Your task to perform on an android device: Open ESPN.com Image 0: 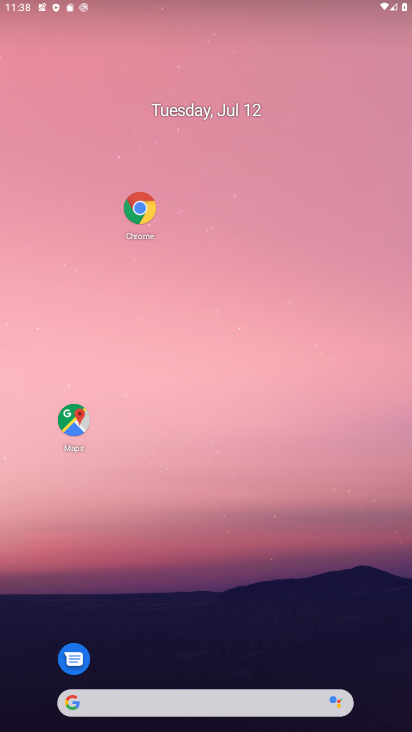
Step 0: press home button
Your task to perform on an android device: Open ESPN.com Image 1: 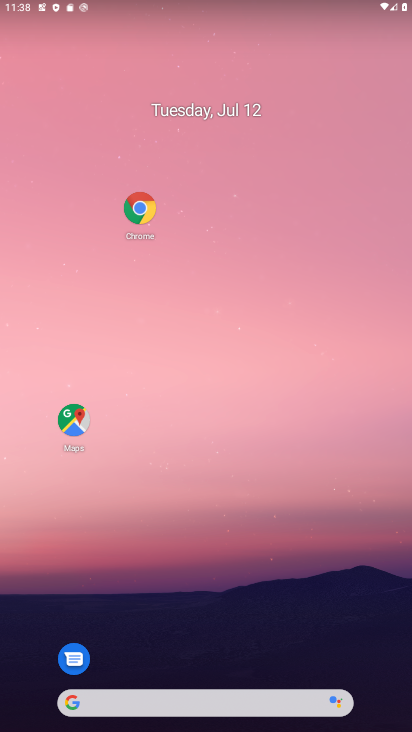
Step 1: drag from (260, 691) to (248, 158)
Your task to perform on an android device: Open ESPN.com Image 2: 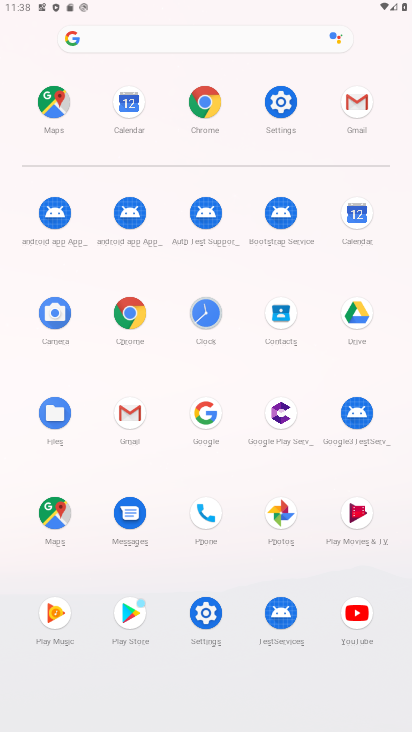
Step 2: click (129, 315)
Your task to perform on an android device: Open ESPN.com Image 3: 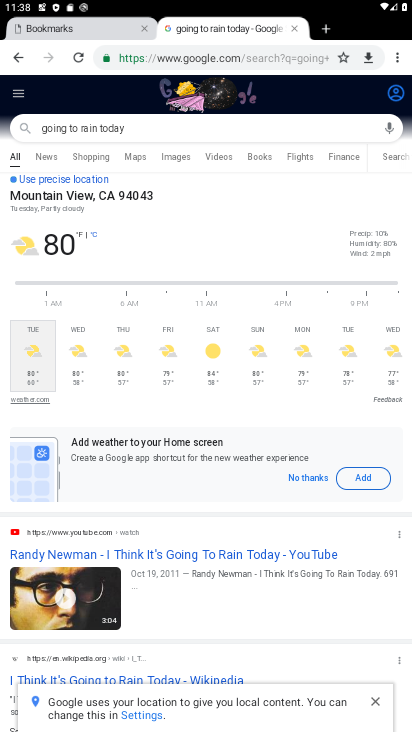
Step 3: drag from (395, 55) to (333, 55)
Your task to perform on an android device: Open ESPN.com Image 4: 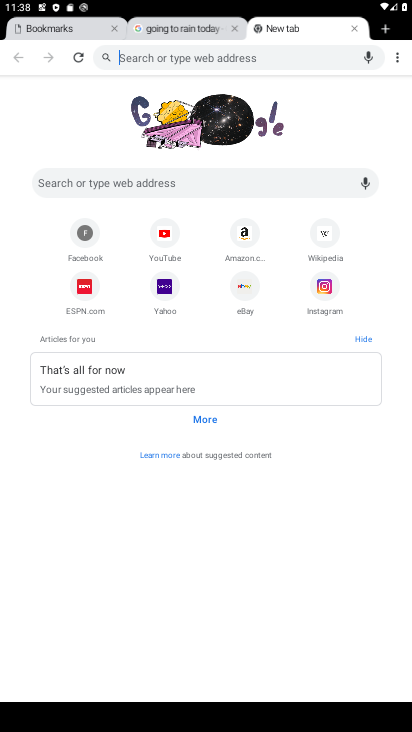
Step 4: click (92, 290)
Your task to perform on an android device: Open ESPN.com Image 5: 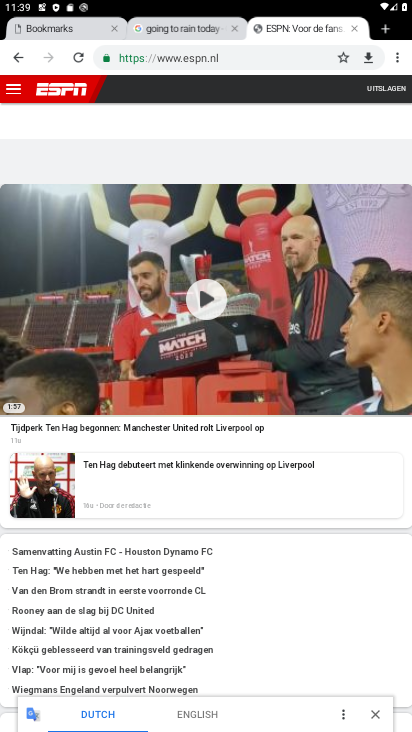
Step 5: task complete